Your task to perform on an android device: clear all cookies in the chrome app Image 0: 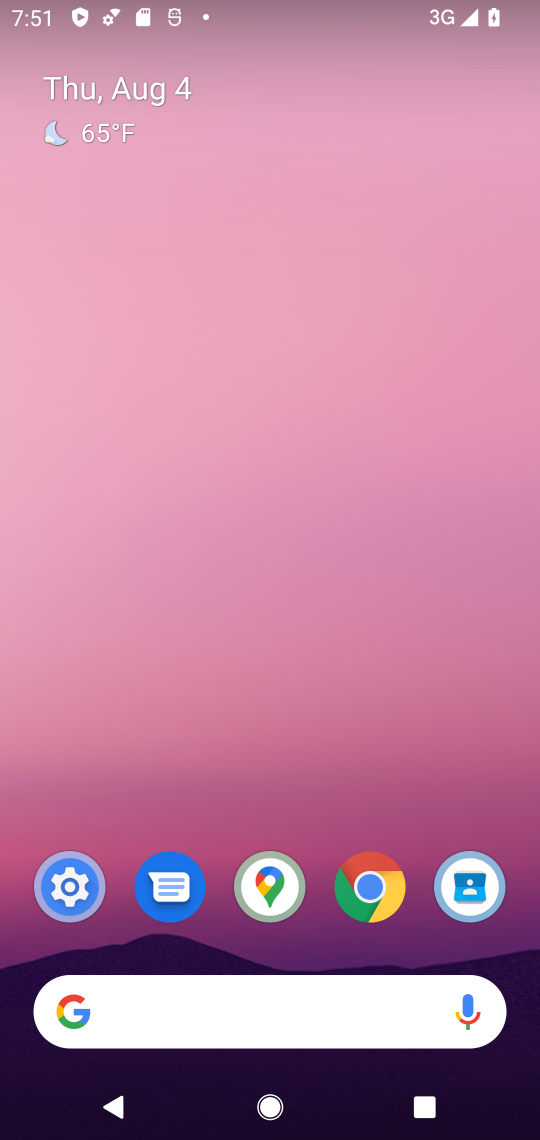
Step 0: drag from (263, 882) to (253, 400)
Your task to perform on an android device: clear all cookies in the chrome app Image 1: 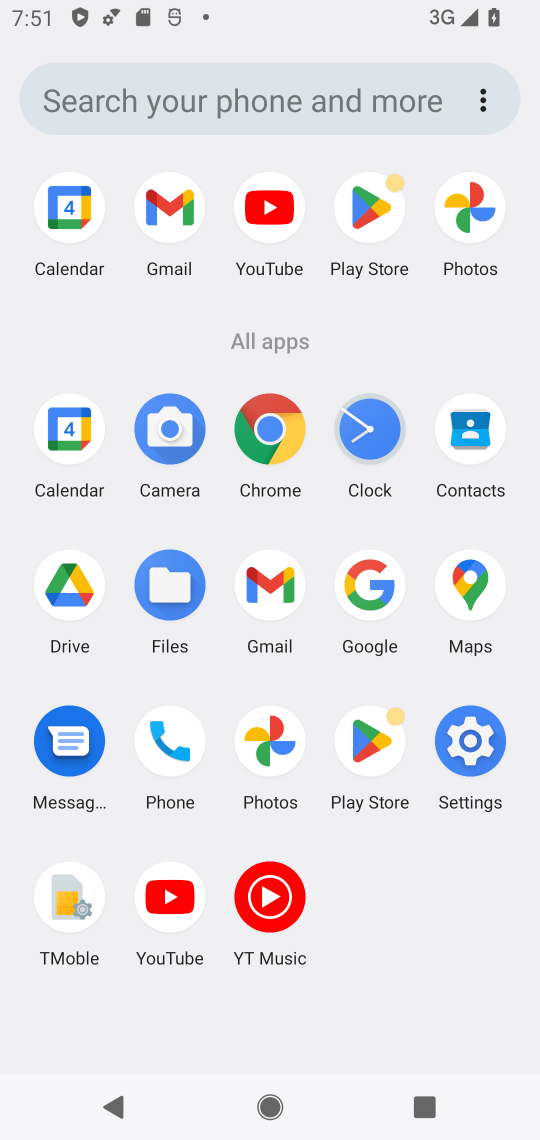
Step 1: click (269, 422)
Your task to perform on an android device: clear all cookies in the chrome app Image 2: 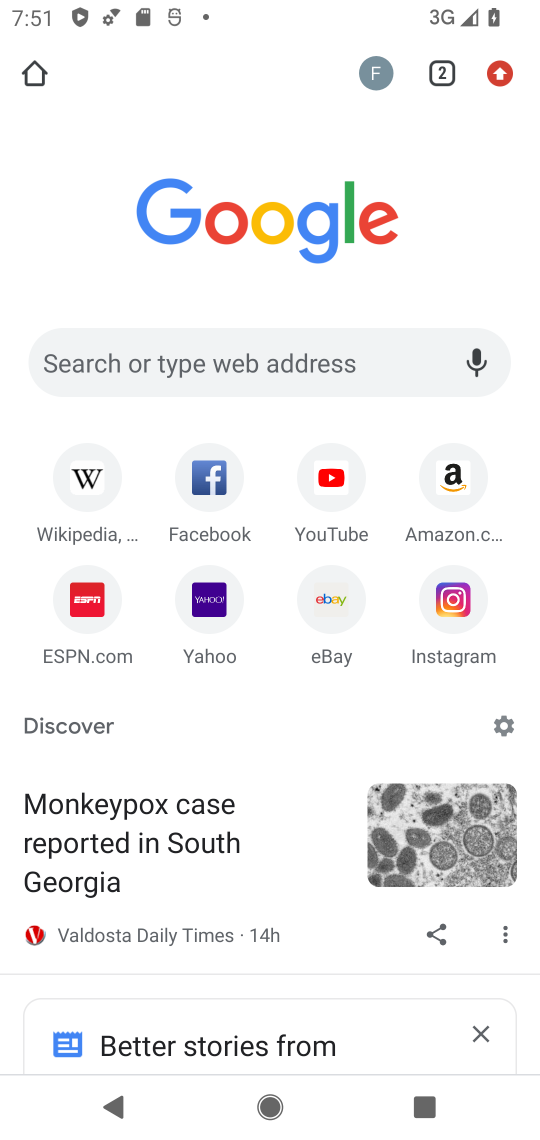
Step 2: click (493, 73)
Your task to perform on an android device: clear all cookies in the chrome app Image 3: 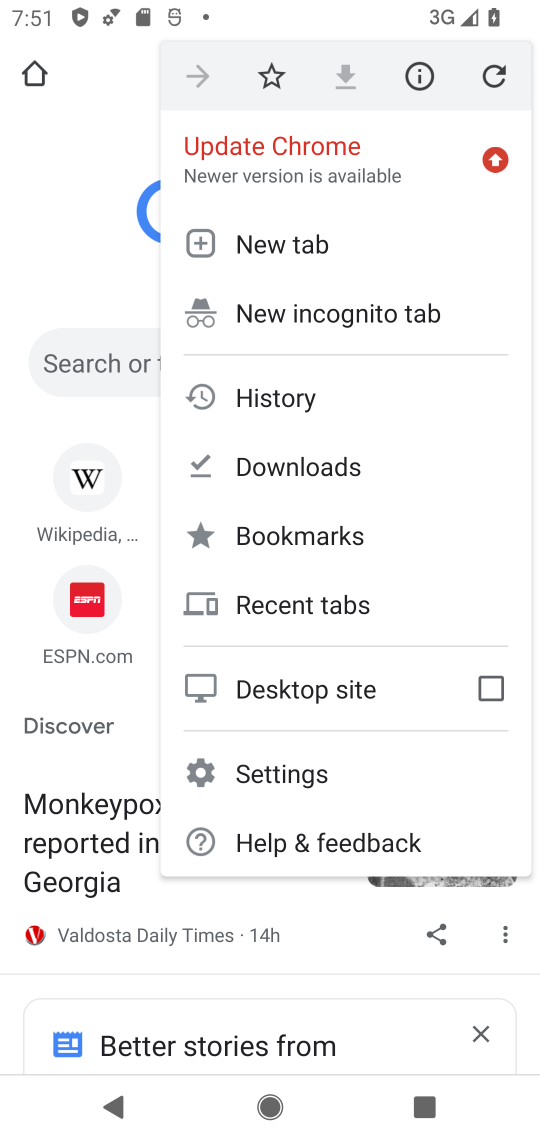
Step 3: click (301, 768)
Your task to perform on an android device: clear all cookies in the chrome app Image 4: 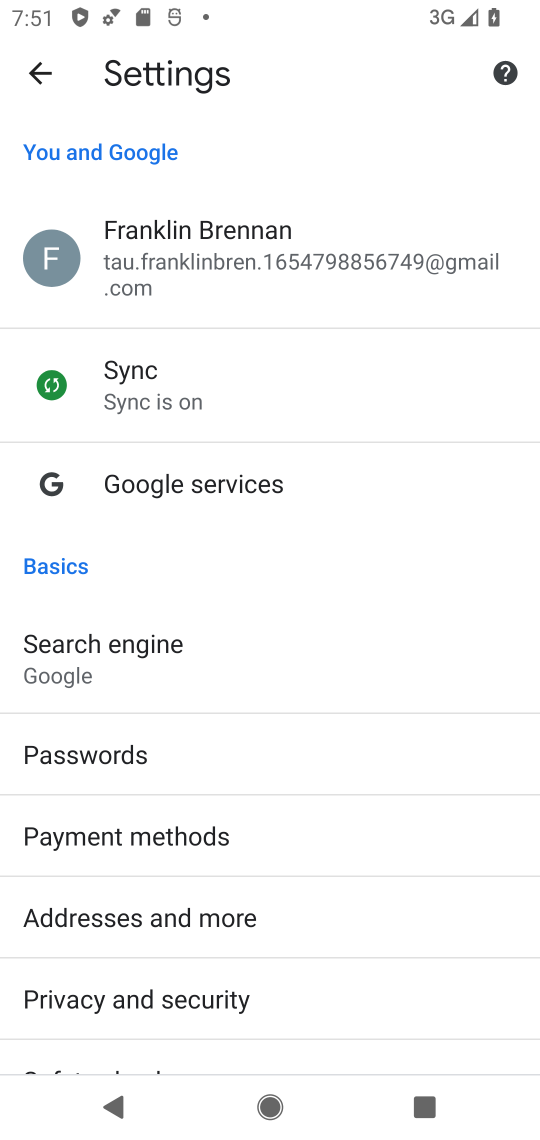
Step 4: click (116, 987)
Your task to perform on an android device: clear all cookies in the chrome app Image 5: 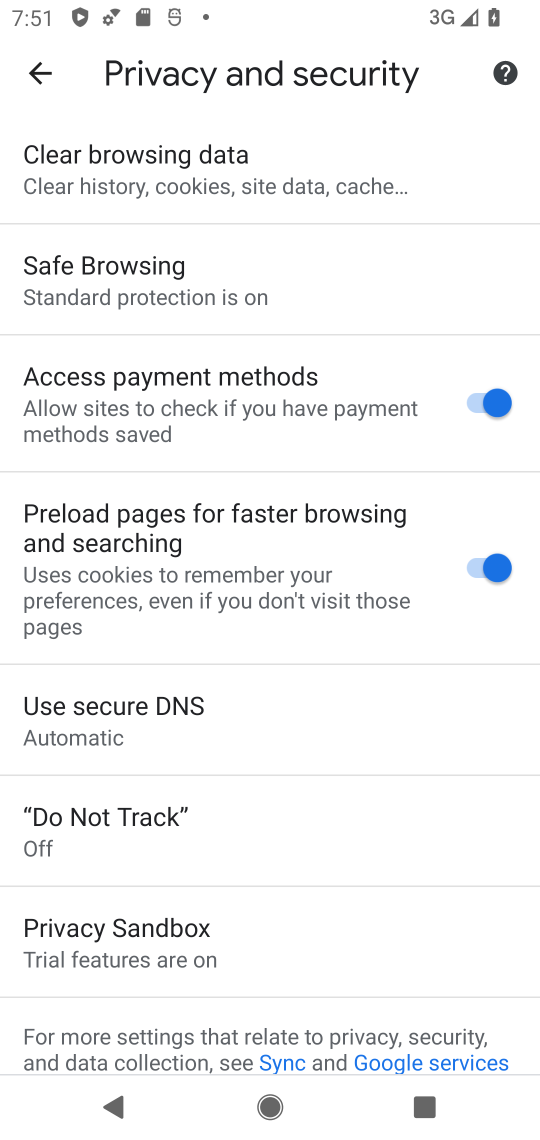
Step 5: click (151, 174)
Your task to perform on an android device: clear all cookies in the chrome app Image 6: 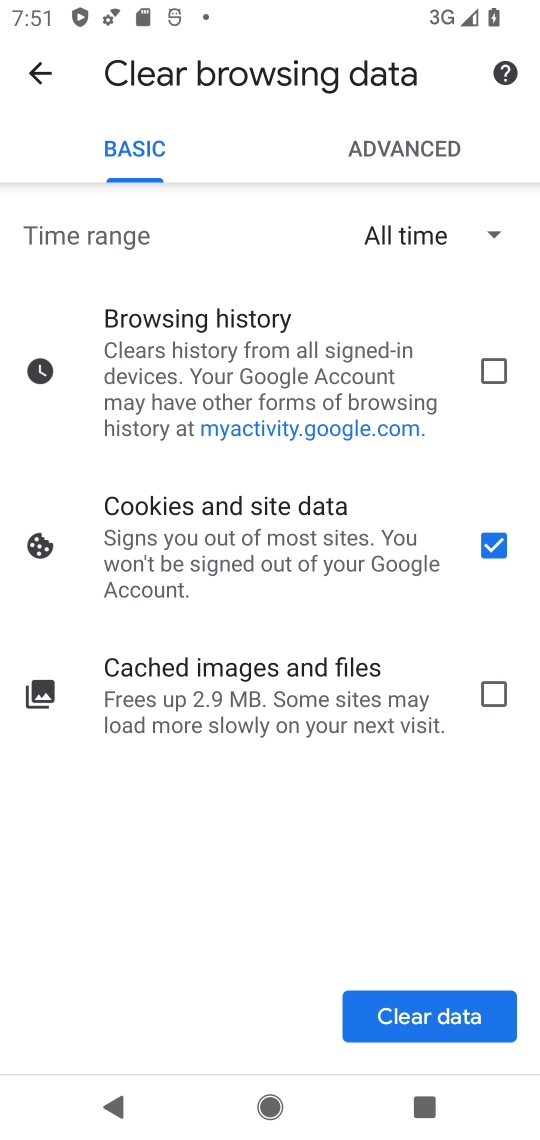
Step 6: click (503, 697)
Your task to perform on an android device: clear all cookies in the chrome app Image 7: 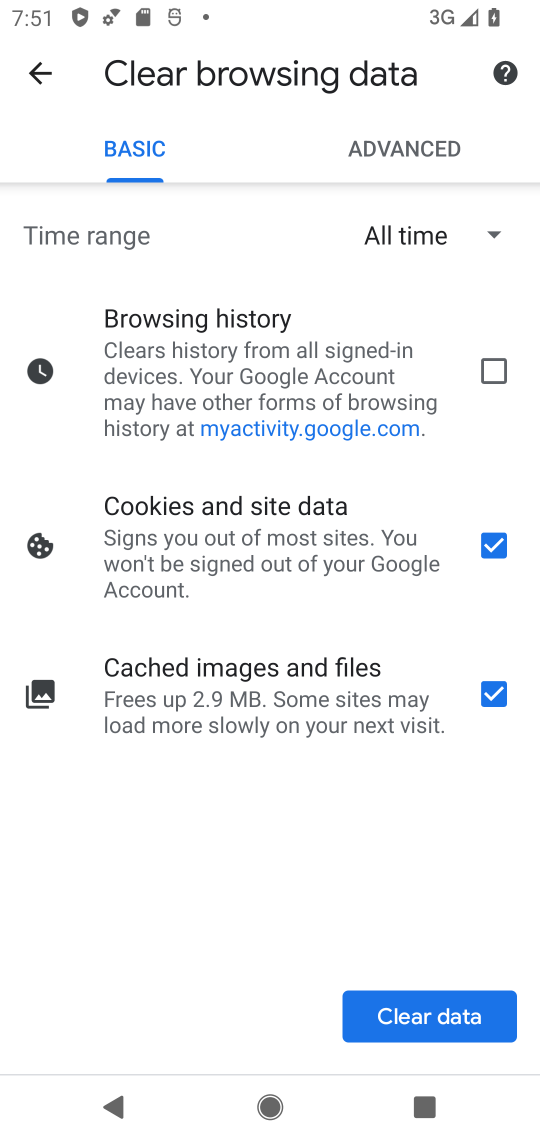
Step 7: click (494, 372)
Your task to perform on an android device: clear all cookies in the chrome app Image 8: 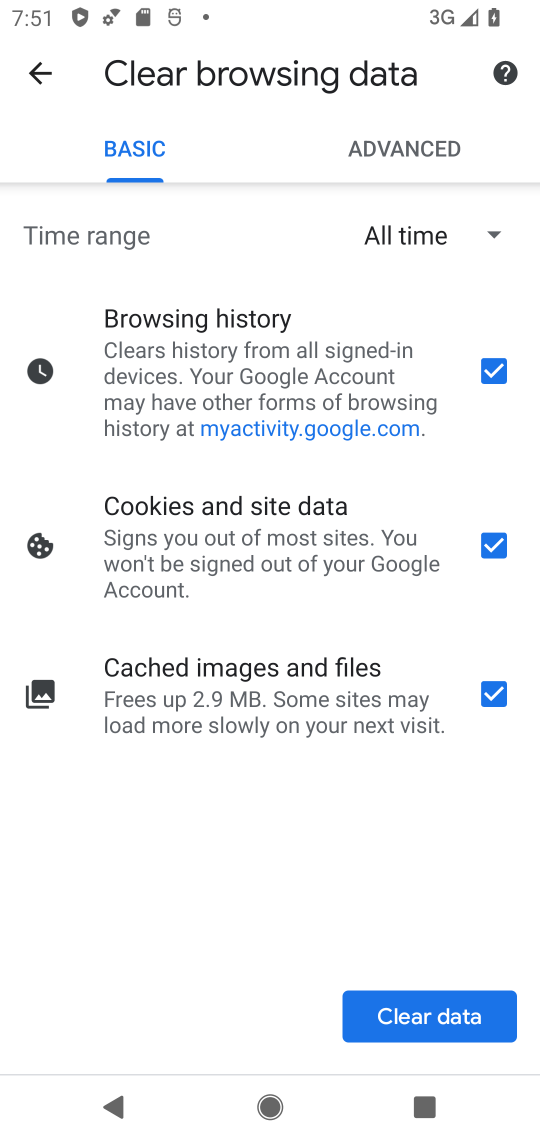
Step 8: click (444, 1018)
Your task to perform on an android device: clear all cookies in the chrome app Image 9: 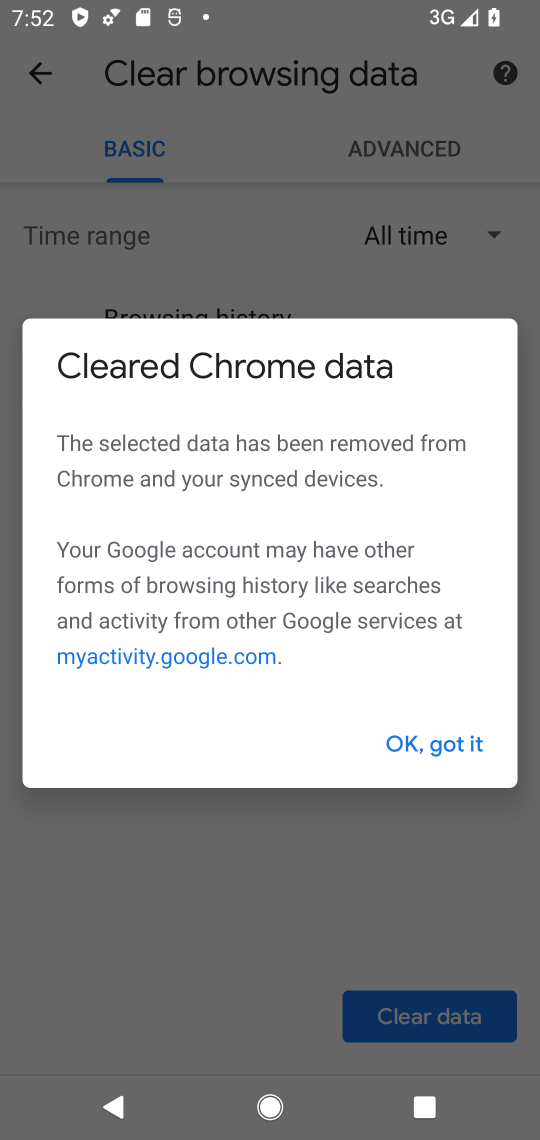
Step 9: click (430, 756)
Your task to perform on an android device: clear all cookies in the chrome app Image 10: 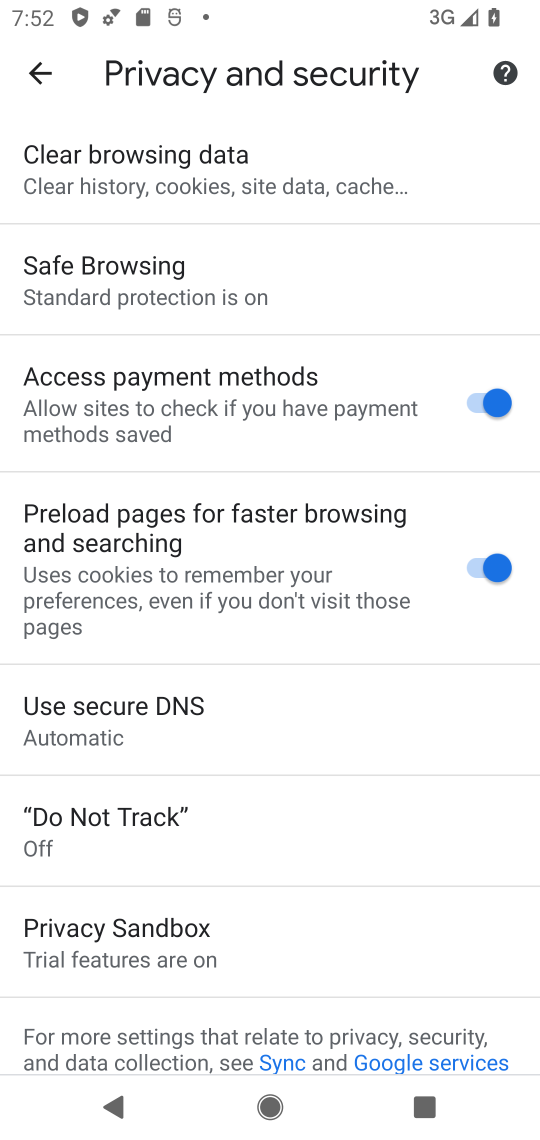
Step 10: task complete